Your task to perform on an android device: snooze an email in the gmail app Image 0: 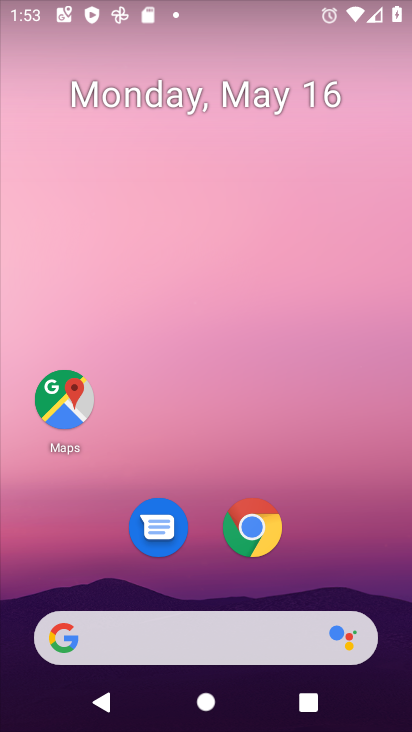
Step 0: drag from (368, 551) to (347, 85)
Your task to perform on an android device: snooze an email in the gmail app Image 1: 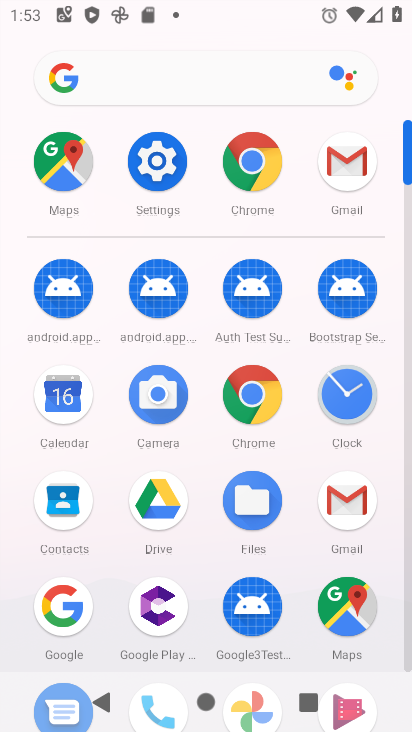
Step 1: click (337, 525)
Your task to perform on an android device: snooze an email in the gmail app Image 2: 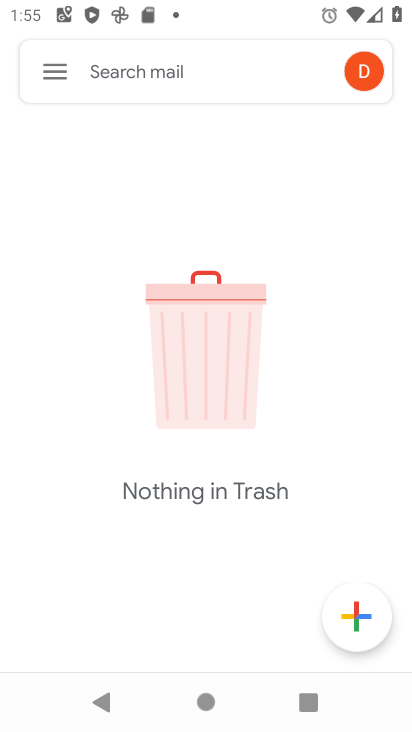
Step 2: click (48, 60)
Your task to perform on an android device: snooze an email in the gmail app Image 3: 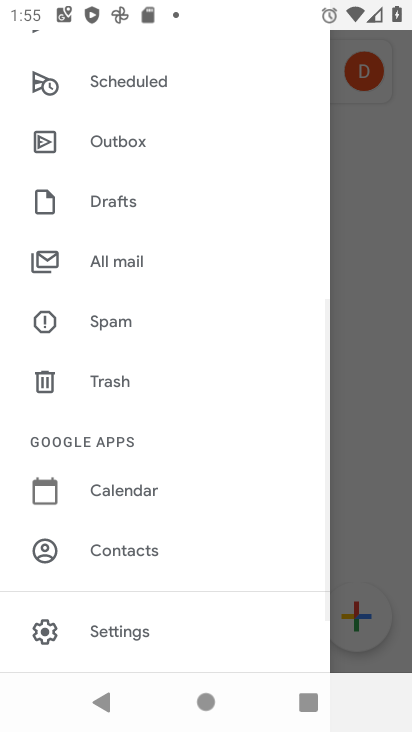
Step 3: click (89, 546)
Your task to perform on an android device: snooze an email in the gmail app Image 4: 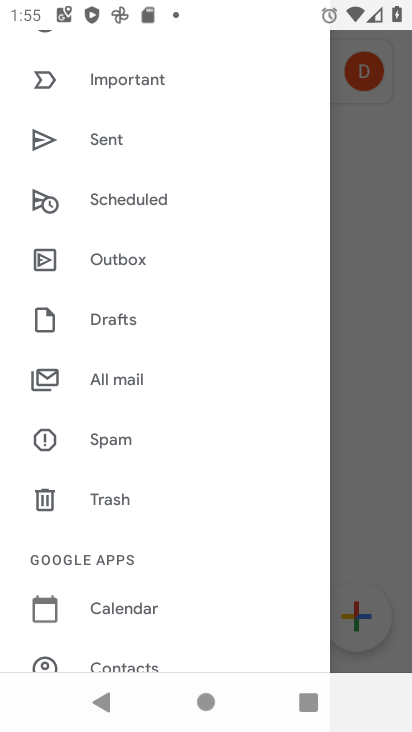
Step 4: drag from (151, 113) to (154, 401)
Your task to perform on an android device: snooze an email in the gmail app Image 5: 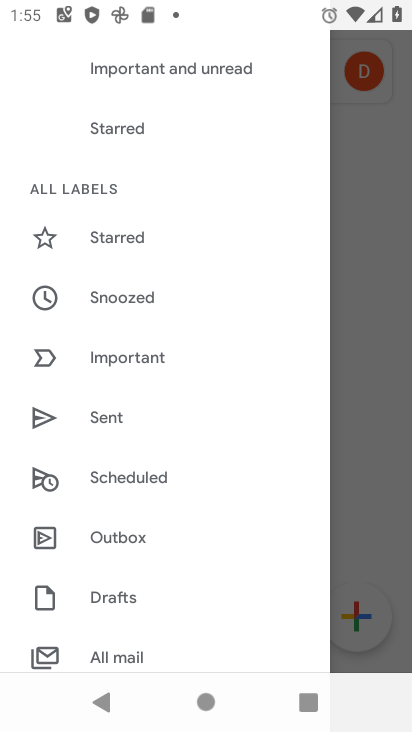
Step 5: click (153, 288)
Your task to perform on an android device: snooze an email in the gmail app Image 6: 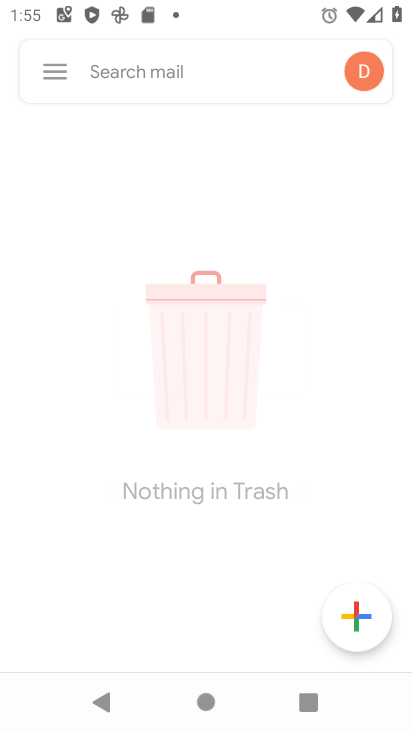
Step 6: task complete